Your task to perform on an android device: turn off smart reply in the gmail app Image 0: 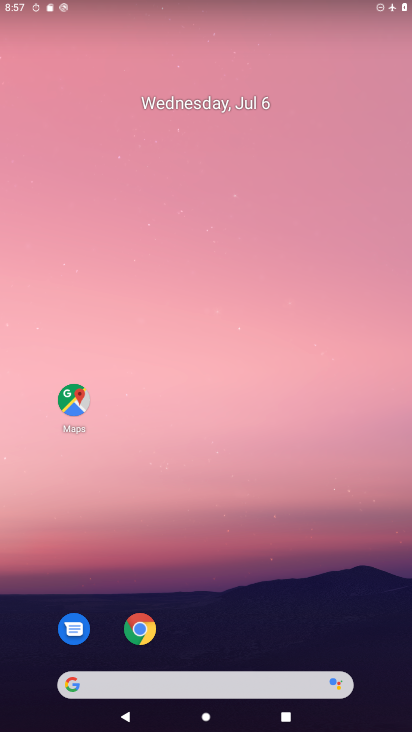
Step 0: drag from (229, 727) to (155, 170)
Your task to perform on an android device: turn off smart reply in the gmail app Image 1: 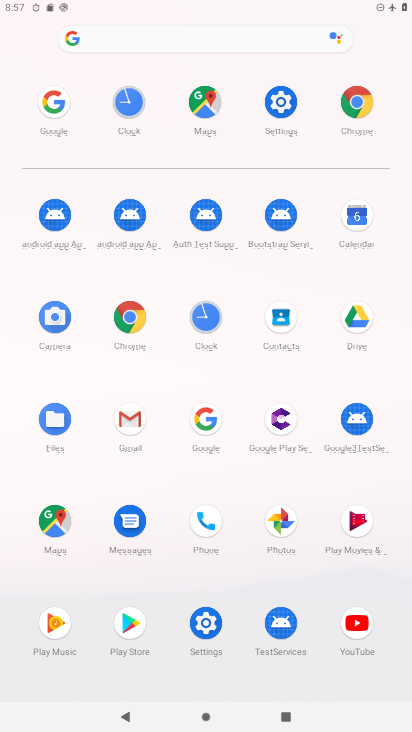
Step 1: click (133, 424)
Your task to perform on an android device: turn off smart reply in the gmail app Image 2: 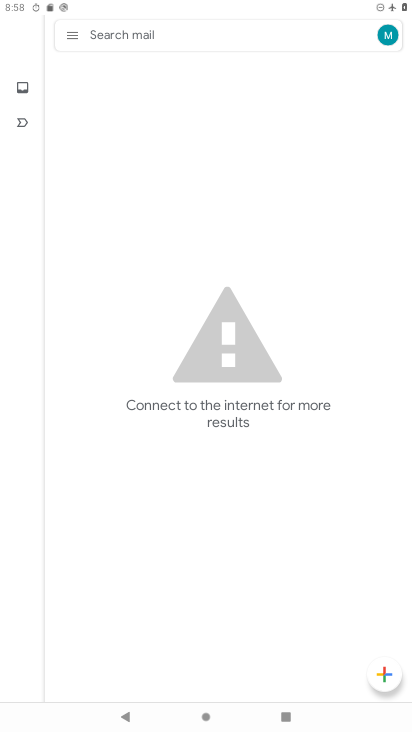
Step 2: click (70, 39)
Your task to perform on an android device: turn off smart reply in the gmail app Image 3: 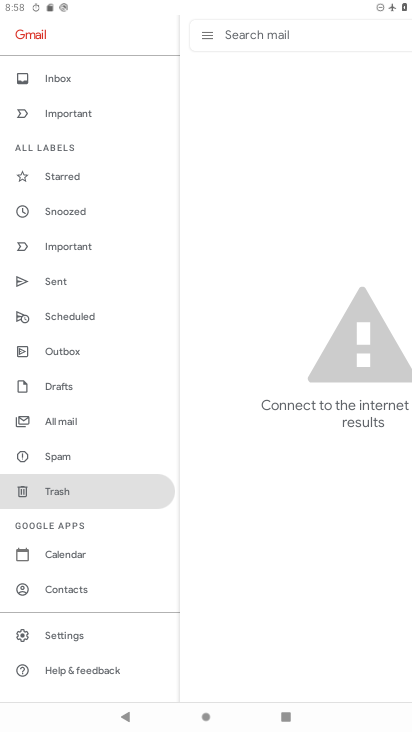
Step 3: click (48, 632)
Your task to perform on an android device: turn off smart reply in the gmail app Image 4: 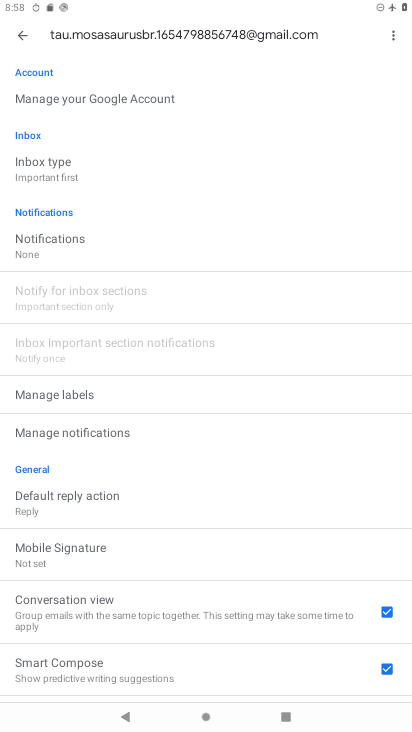
Step 4: click (139, 652)
Your task to perform on an android device: turn off smart reply in the gmail app Image 5: 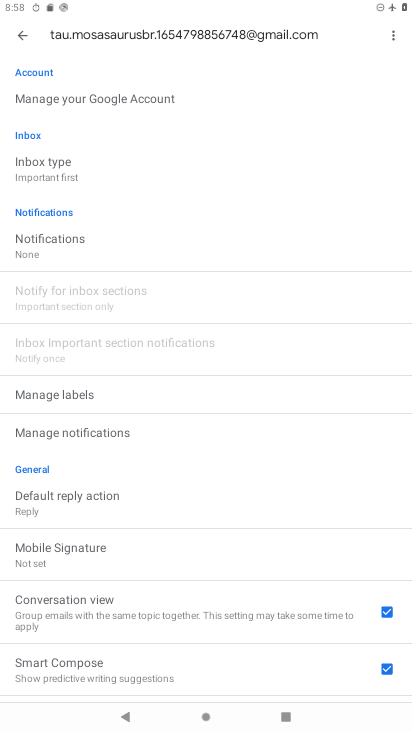
Step 5: drag from (136, 572) to (110, 307)
Your task to perform on an android device: turn off smart reply in the gmail app Image 6: 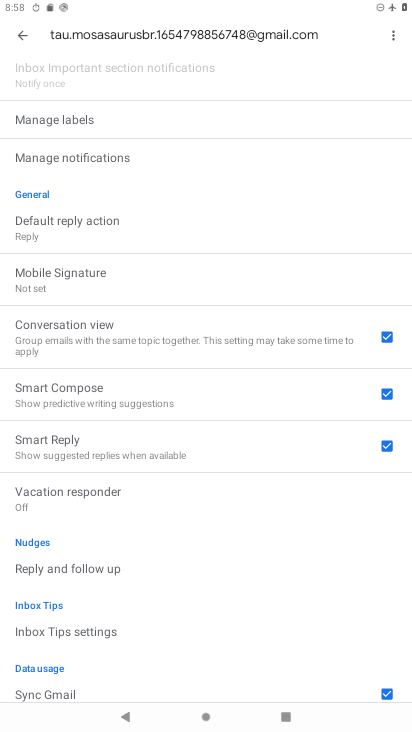
Step 6: drag from (159, 671) to (150, 376)
Your task to perform on an android device: turn off smart reply in the gmail app Image 7: 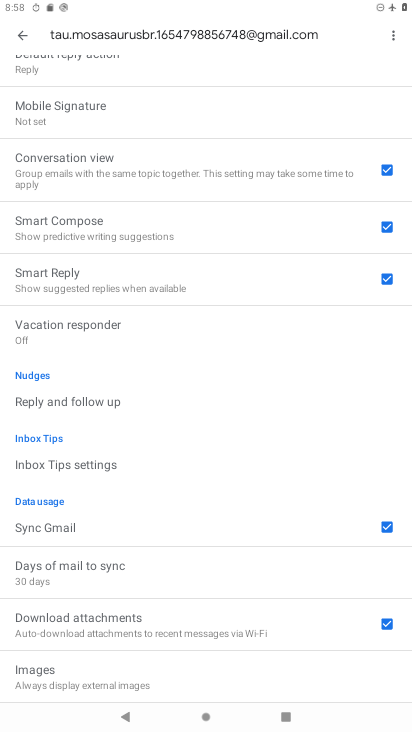
Step 7: click (388, 275)
Your task to perform on an android device: turn off smart reply in the gmail app Image 8: 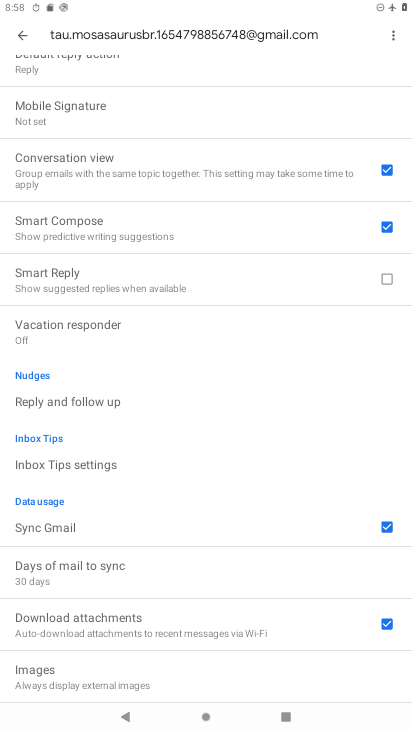
Step 8: task complete